Your task to perform on an android device: Open the map Image 0: 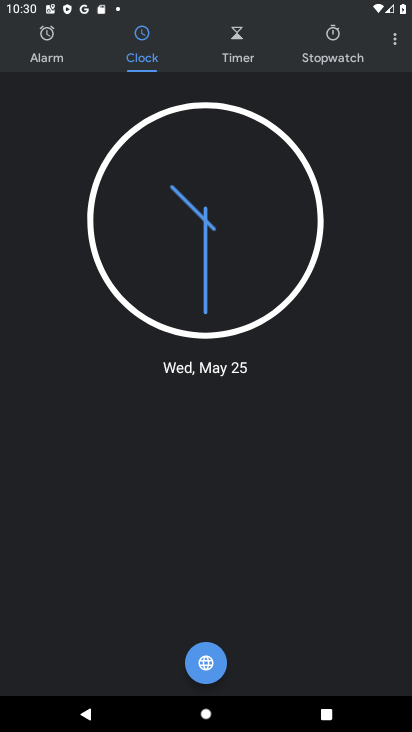
Step 0: press home button
Your task to perform on an android device: Open the map Image 1: 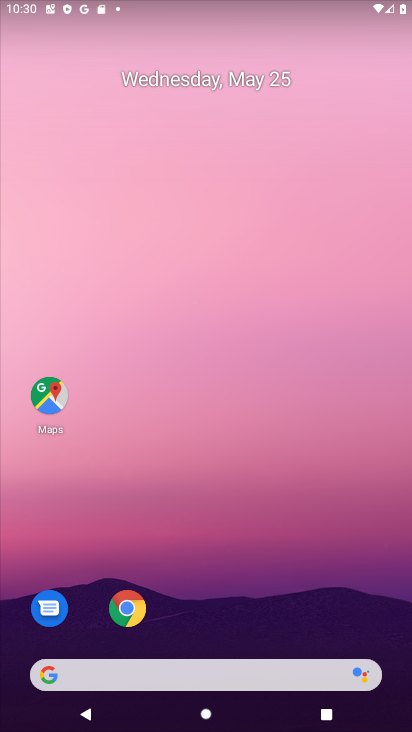
Step 1: click (47, 396)
Your task to perform on an android device: Open the map Image 2: 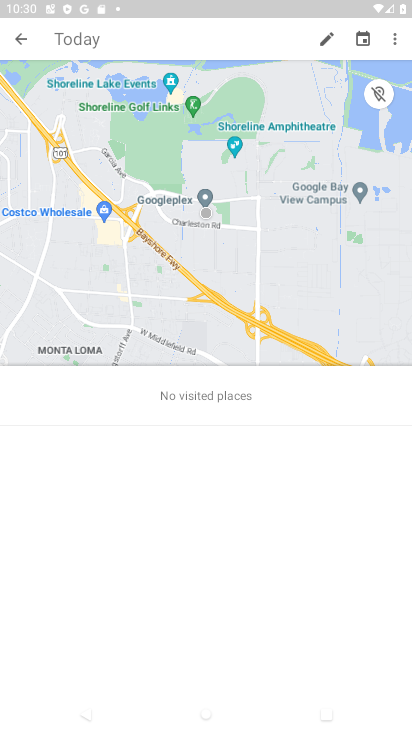
Step 2: task complete